Your task to perform on an android device: change text size in settings app Image 0: 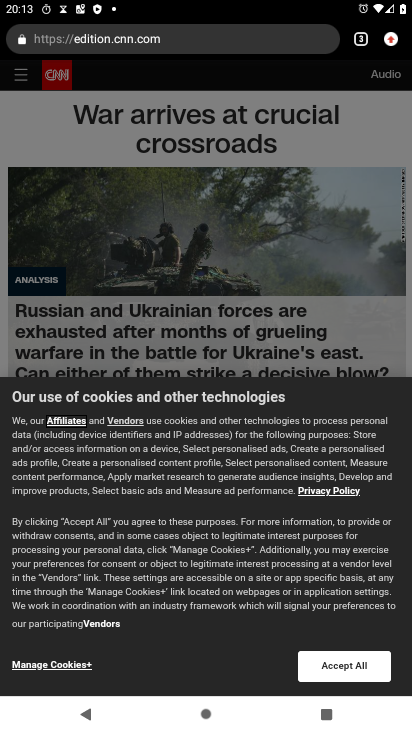
Step 0: press home button
Your task to perform on an android device: change text size in settings app Image 1: 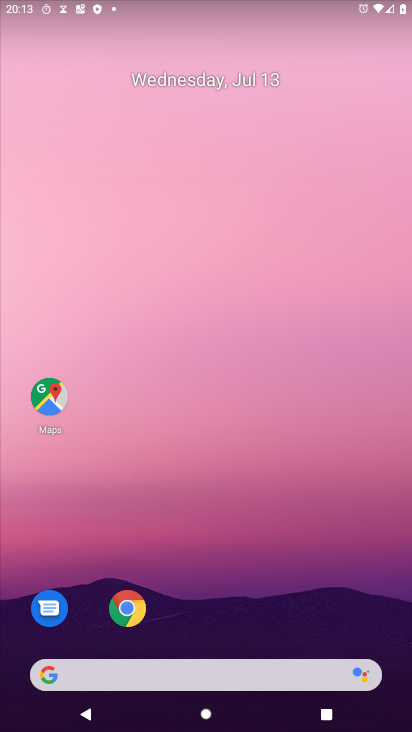
Step 1: drag from (210, 646) to (152, 61)
Your task to perform on an android device: change text size in settings app Image 2: 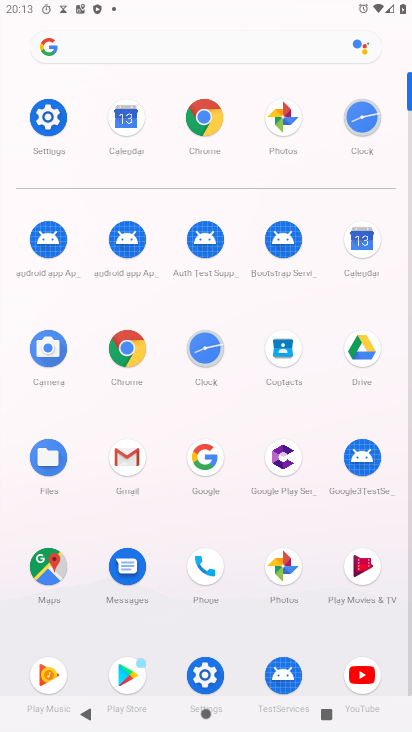
Step 2: click (44, 131)
Your task to perform on an android device: change text size in settings app Image 3: 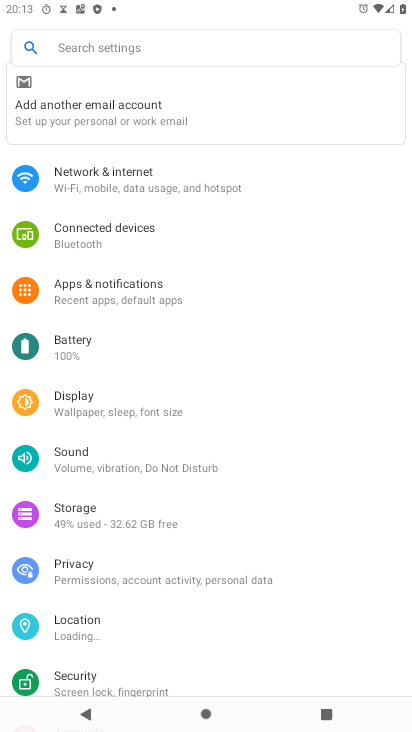
Step 3: click (82, 371)
Your task to perform on an android device: change text size in settings app Image 4: 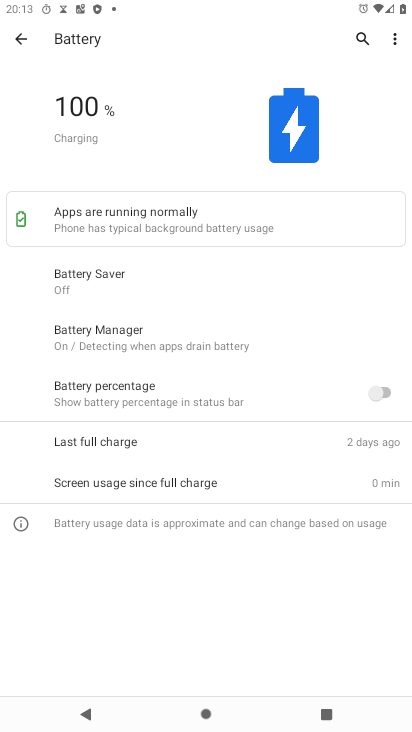
Step 4: click (20, 27)
Your task to perform on an android device: change text size in settings app Image 5: 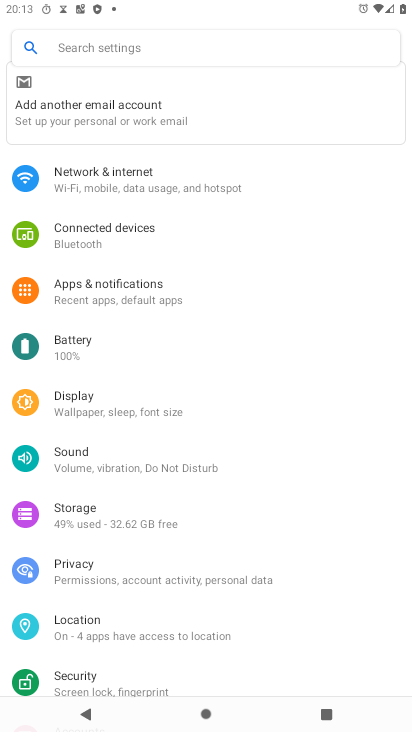
Step 5: click (79, 417)
Your task to perform on an android device: change text size in settings app Image 6: 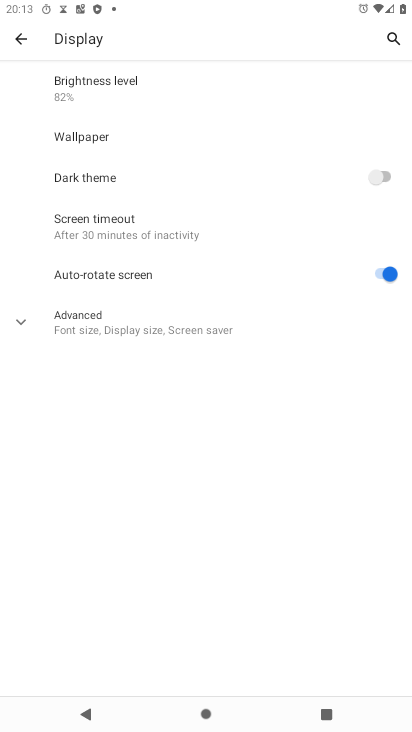
Step 6: click (124, 320)
Your task to perform on an android device: change text size in settings app Image 7: 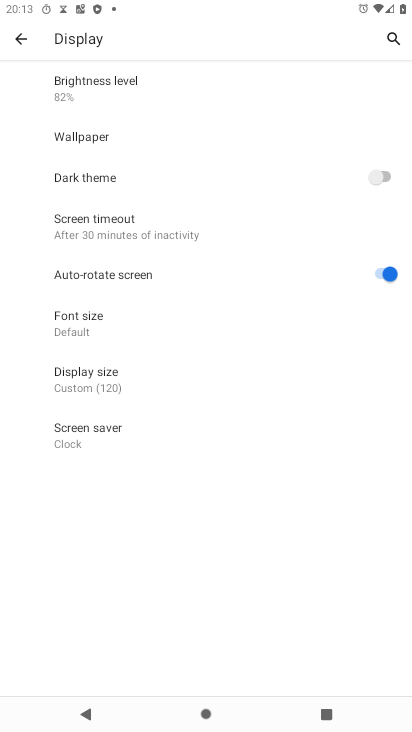
Step 7: click (88, 328)
Your task to perform on an android device: change text size in settings app Image 8: 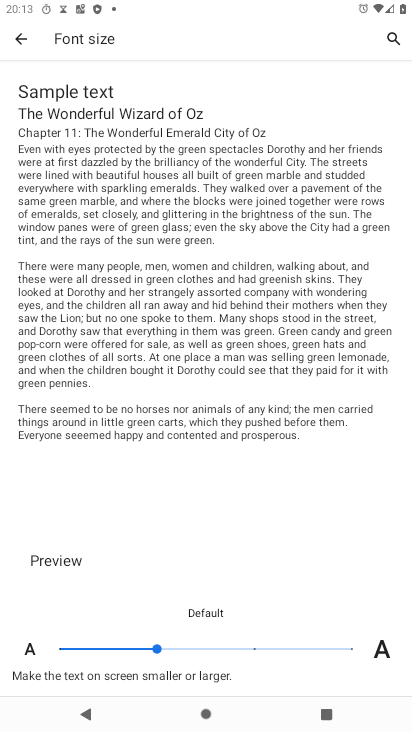
Step 8: click (251, 645)
Your task to perform on an android device: change text size in settings app Image 9: 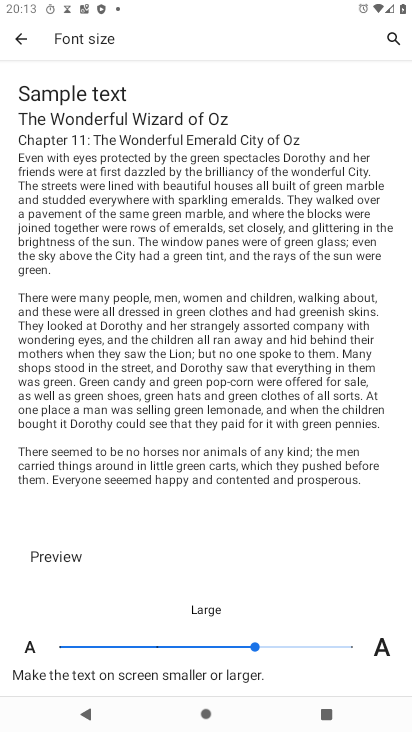
Step 9: task complete